Your task to perform on an android device: search for starred emails in the gmail app Image 0: 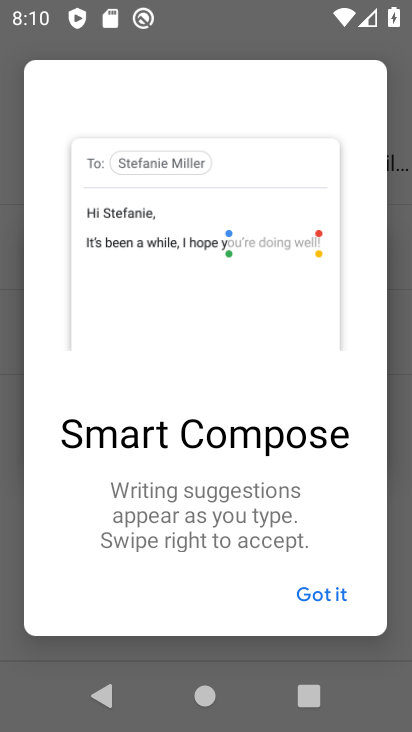
Step 0: press home button
Your task to perform on an android device: search for starred emails in the gmail app Image 1: 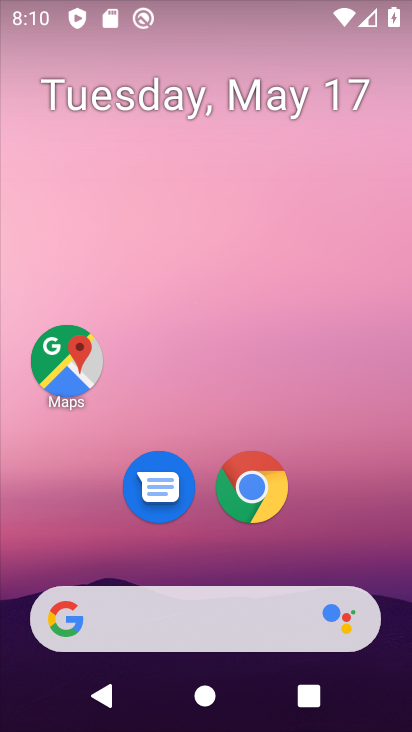
Step 1: drag from (239, 671) to (243, 168)
Your task to perform on an android device: search for starred emails in the gmail app Image 2: 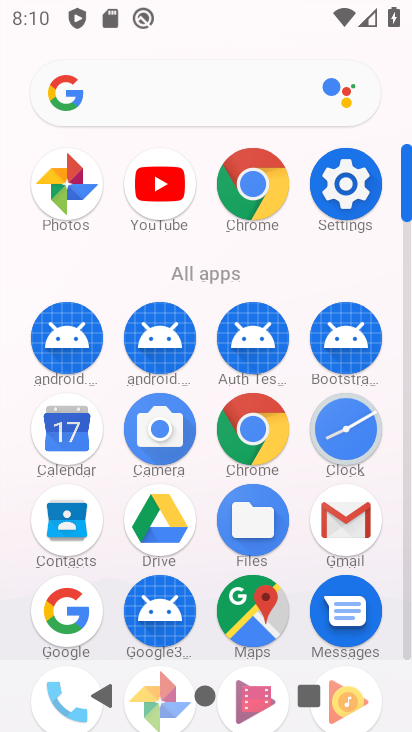
Step 2: drag from (210, 503) to (220, 277)
Your task to perform on an android device: search for starred emails in the gmail app Image 3: 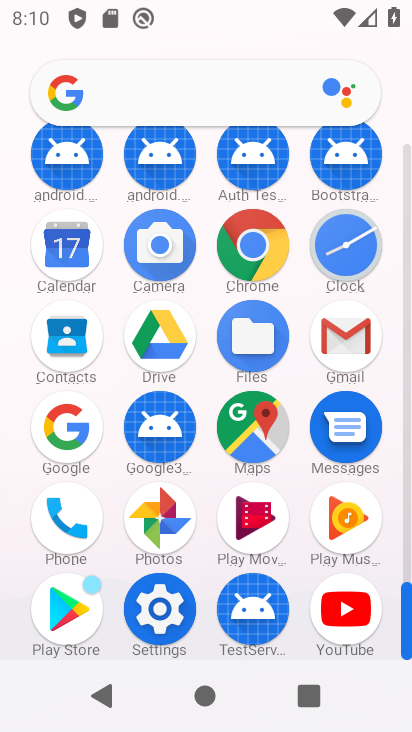
Step 3: click (347, 352)
Your task to perform on an android device: search for starred emails in the gmail app Image 4: 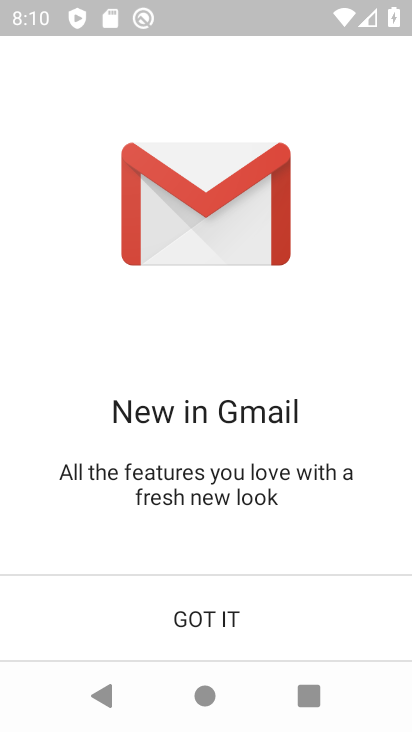
Step 4: click (232, 629)
Your task to perform on an android device: search for starred emails in the gmail app Image 5: 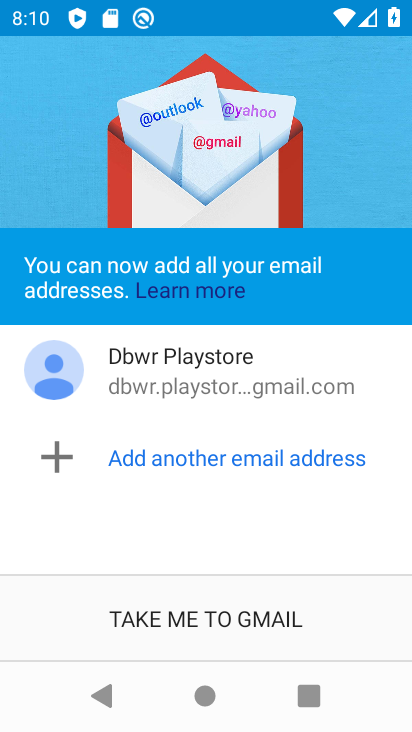
Step 5: click (230, 630)
Your task to perform on an android device: search for starred emails in the gmail app Image 6: 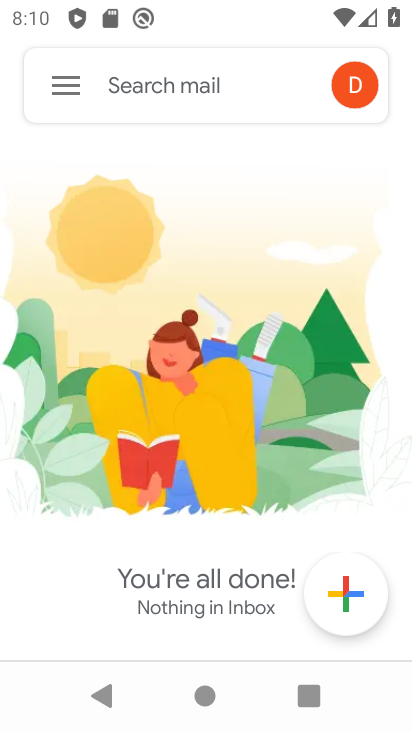
Step 6: click (80, 102)
Your task to perform on an android device: search for starred emails in the gmail app Image 7: 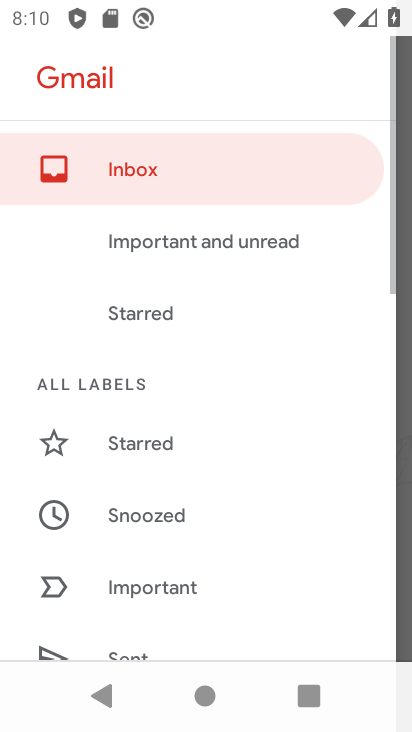
Step 7: click (189, 323)
Your task to perform on an android device: search for starred emails in the gmail app Image 8: 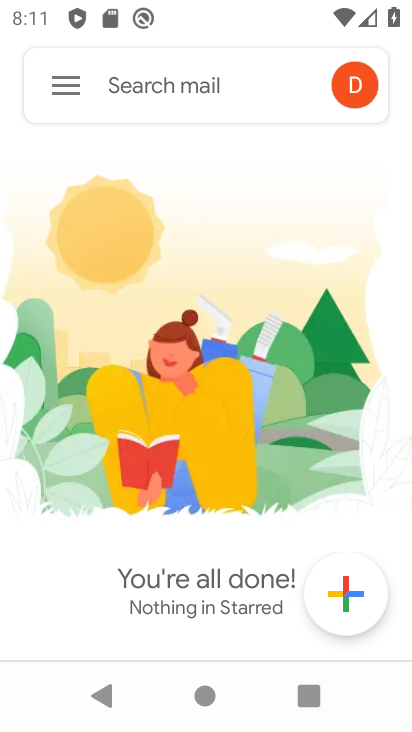
Step 8: task complete